Your task to perform on an android device: Search for vegetarian restaurants on Maps Image 0: 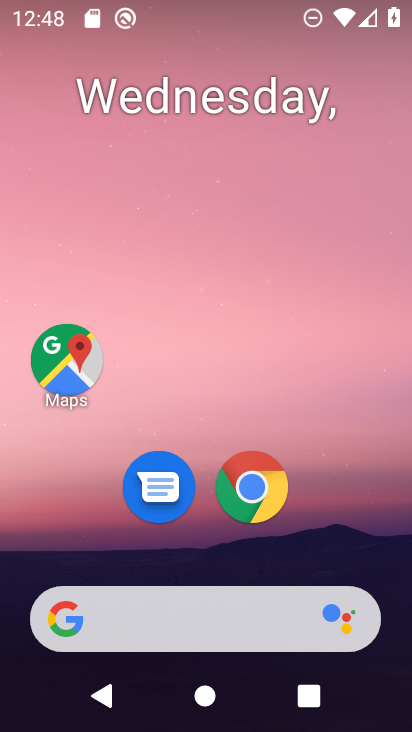
Step 0: drag from (365, 539) to (366, 182)
Your task to perform on an android device: Search for vegetarian restaurants on Maps Image 1: 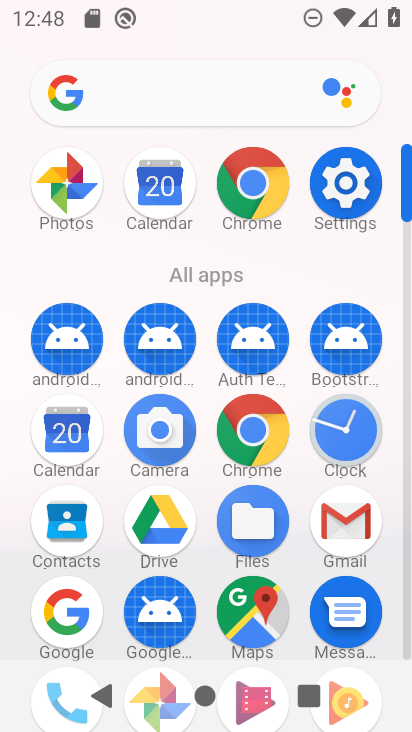
Step 1: click (240, 624)
Your task to perform on an android device: Search for vegetarian restaurants on Maps Image 2: 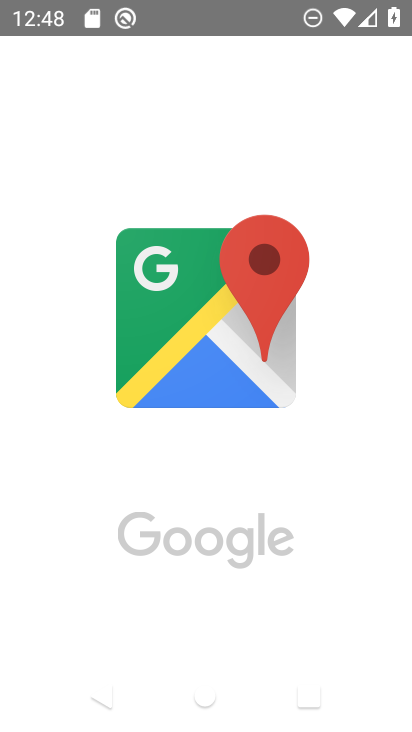
Step 2: task complete